Your task to perform on an android device: turn off translation in the chrome app Image 0: 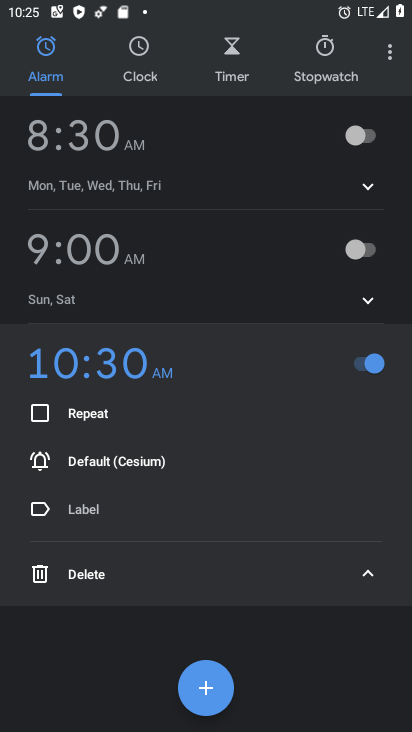
Step 0: press home button
Your task to perform on an android device: turn off translation in the chrome app Image 1: 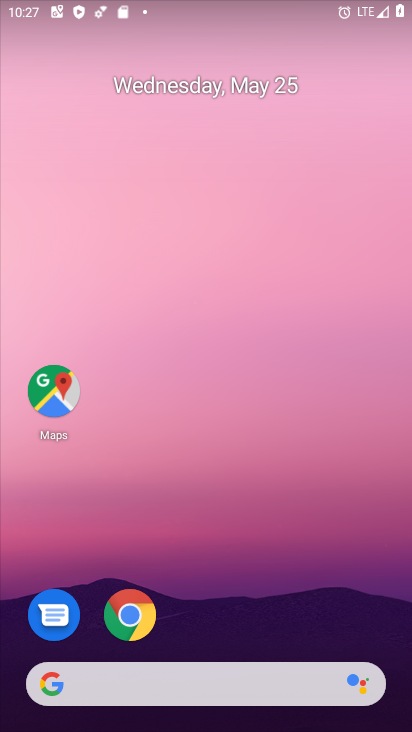
Step 1: click (137, 607)
Your task to perform on an android device: turn off translation in the chrome app Image 2: 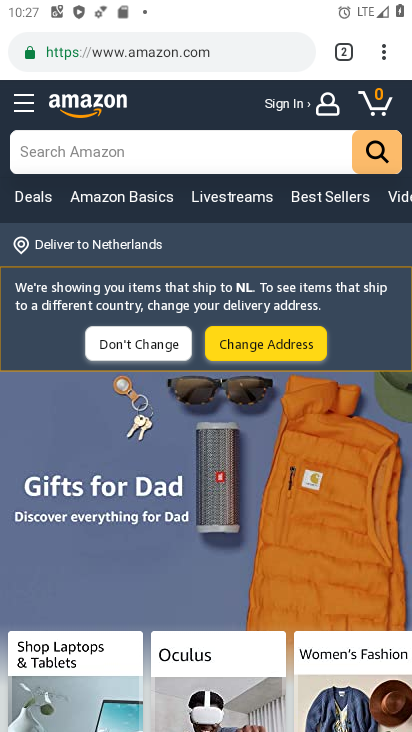
Step 2: click (384, 54)
Your task to perform on an android device: turn off translation in the chrome app Image 3: 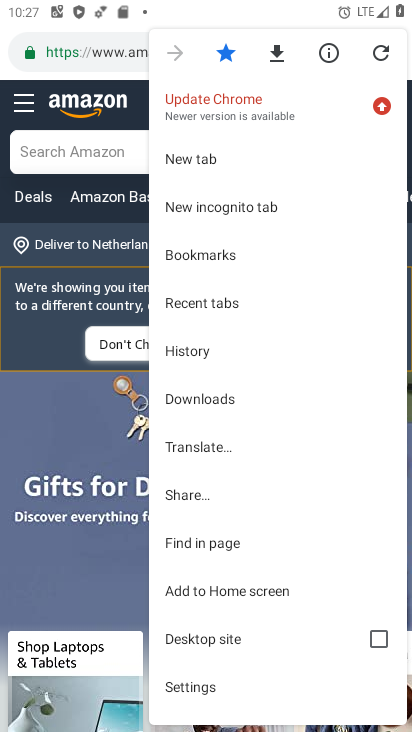
Step 3: click (202, 680)
Your task to perform on an android device: turn off translation in the chrome app Image 4: 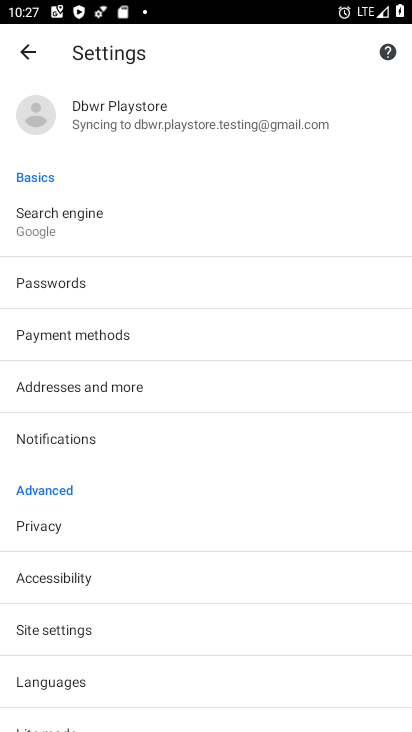
Step 4: click (122, 680)
Your task to perform on an android device: turn off translation in the chrome app Image 5: 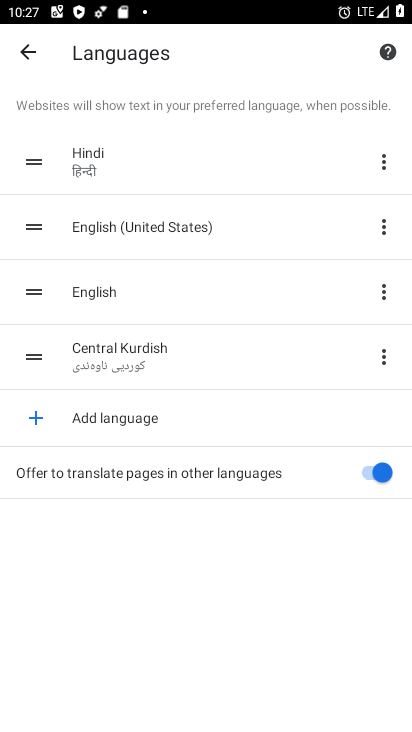
Step 5: click (363, 465)
Your task to perform on an android device: turn off translation in the chrome app Image 6: 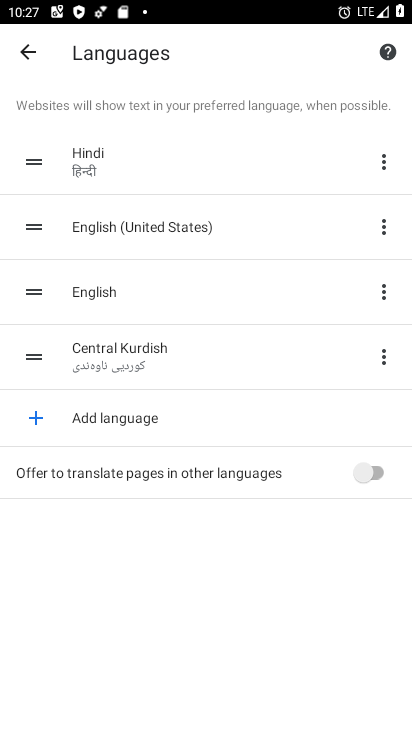
Step 6: task complete